Your task to perform on an android device: turn notification dots off Image 0: 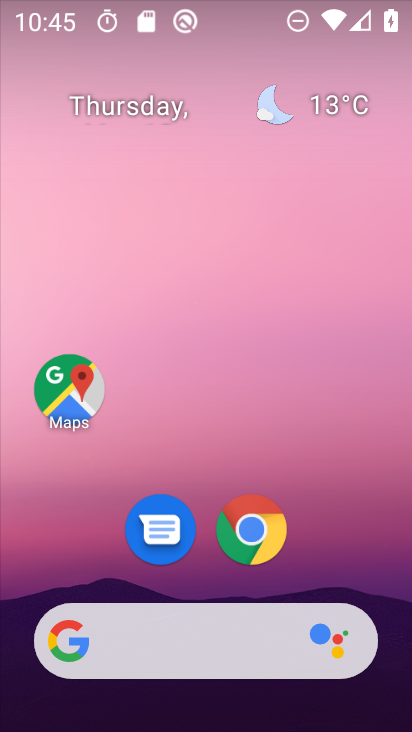
Step 0: drag from (335, 524) to (385, 98)
Your task to perform on an android device: turn notification dots off Image 1: 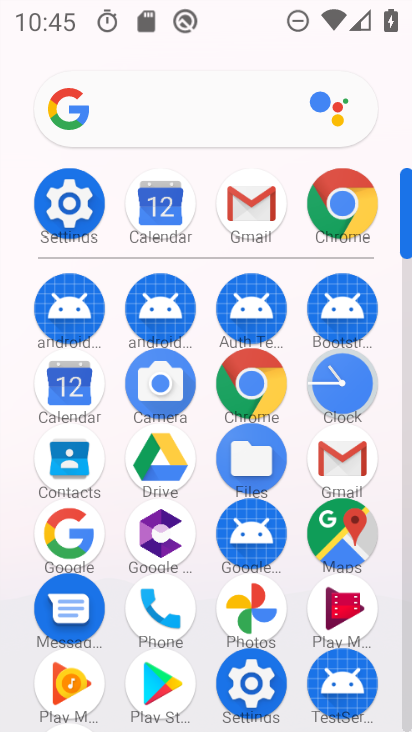
Step 1: click (76, 232)
Your task to perform on an android device: turn notification dots off Image 2: 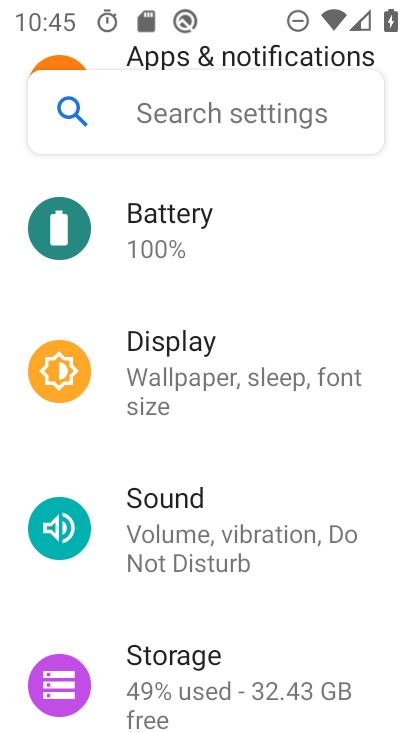
Step 2: drag from (325, 270) to (235, 557)
Your task to perform on an android device: turn notification dots off Image 3: 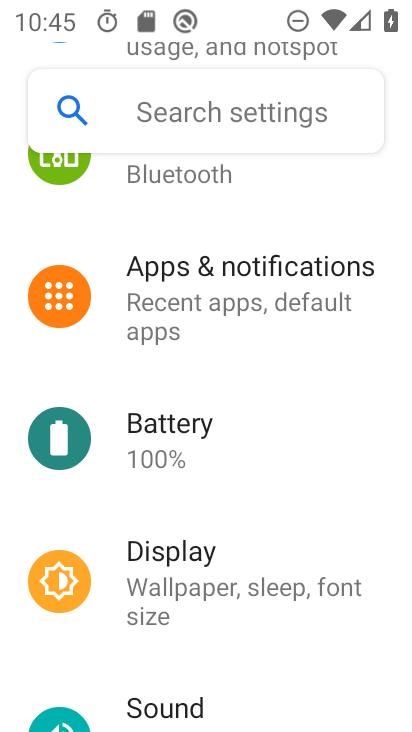
Step 3: click (330, 289)
Your task to perform on an android device: turn notification dots off Image 4: 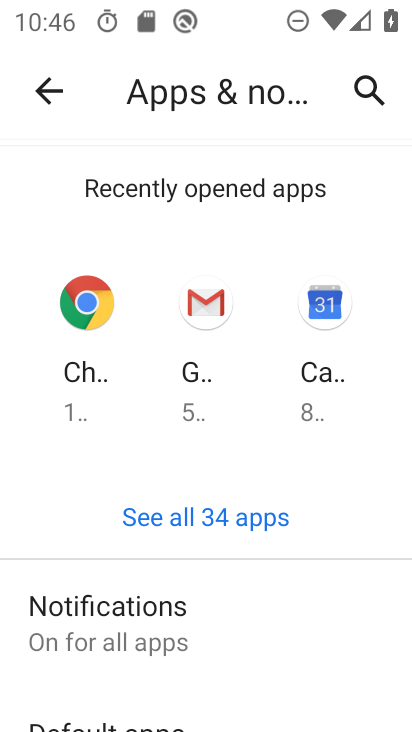
Step 4: drag from (217, 629) to (320, 273)
Your task to perform on an android device: turn notification dots off Image 5: 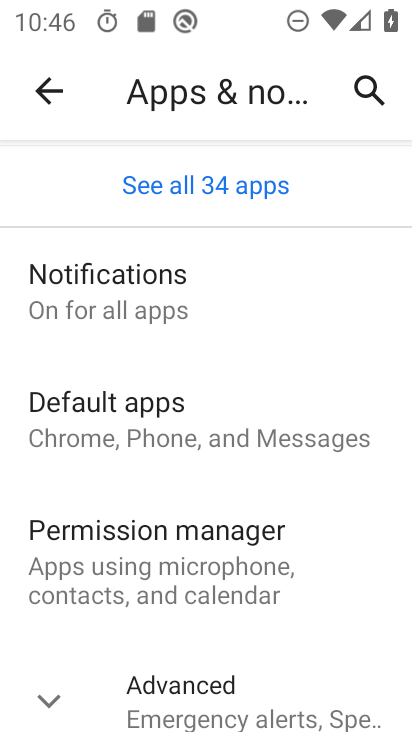
Step 5: drag from (308, 563) to (357, 269)
Your task to perform on an android device: turn notification dots off Image 6: 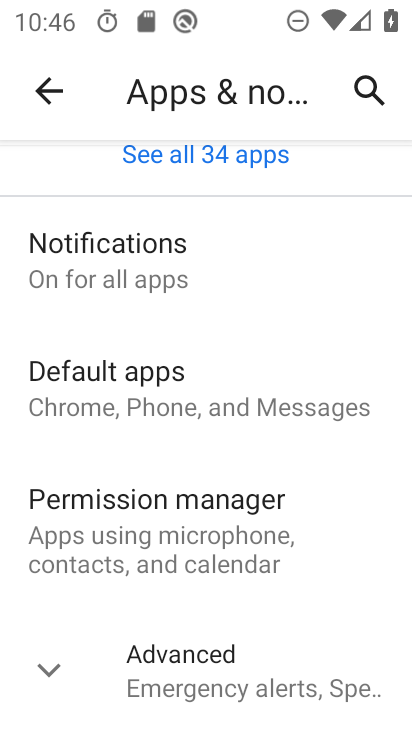
Step 6: click (285, 254)
Your task to perform on an android device: turn notification dots off Image 7: 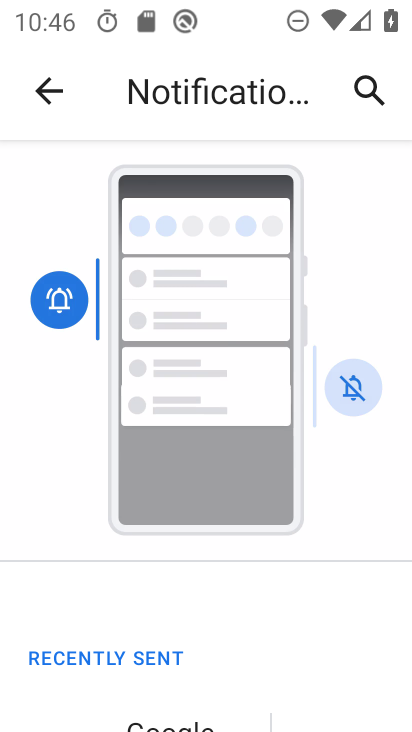
Step 7: drag from (219, 615) to (331, 253)
Your task to perform on an android device: turn notification dots off Image 8: 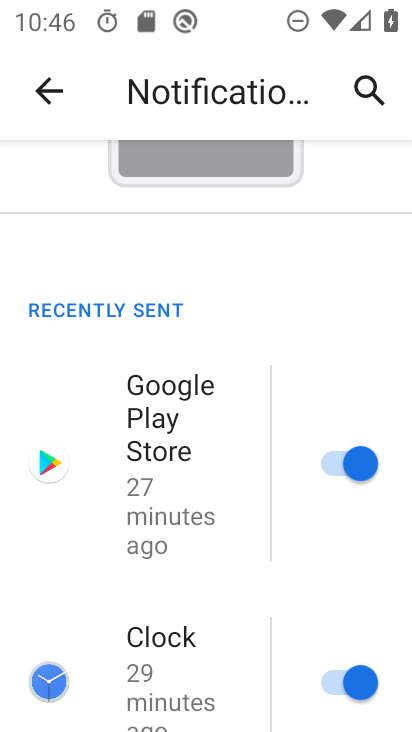
Step 8: drag from (173, 577) to (349, 109)
Your task to perform on an android device: turn notification dots off Image 9: 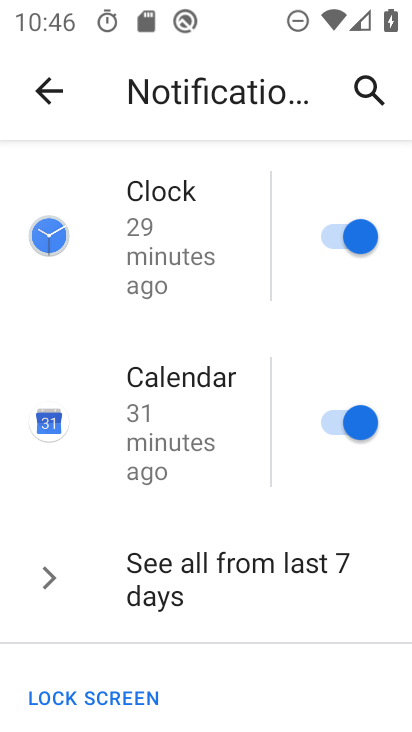
Step 9: drag from (171, 560) to (369, 8)
Your task to perform on an android device: turn notification dots off Image 10: 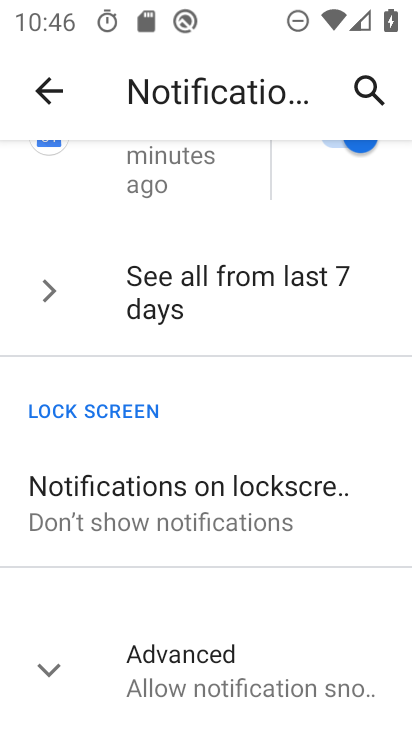
Step 10: click (168, 658)
Your task to perform on an android device: turn notification dots off Image 11: 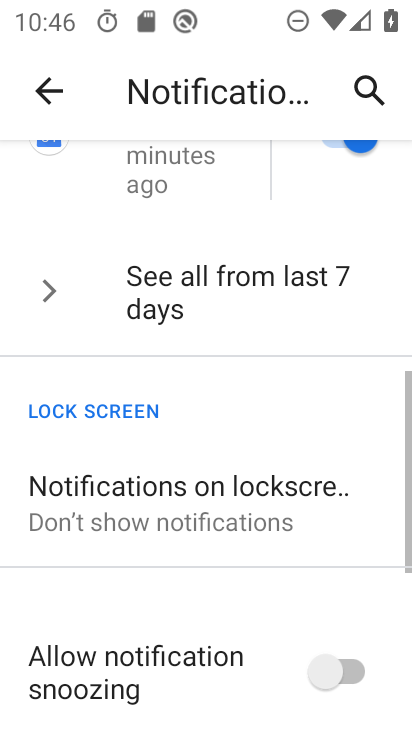
Step 11: drag from (212, 676) to (407, 210)
Your task to perform on an android device: turn notification dots off Image 12: 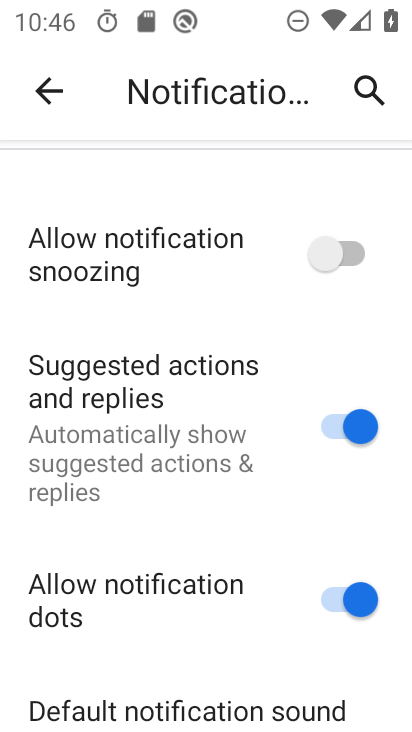
Step 12: drag from (207, 634) to (308, 308)
Your task to perform on an android device: turn notification dots off Image 13: 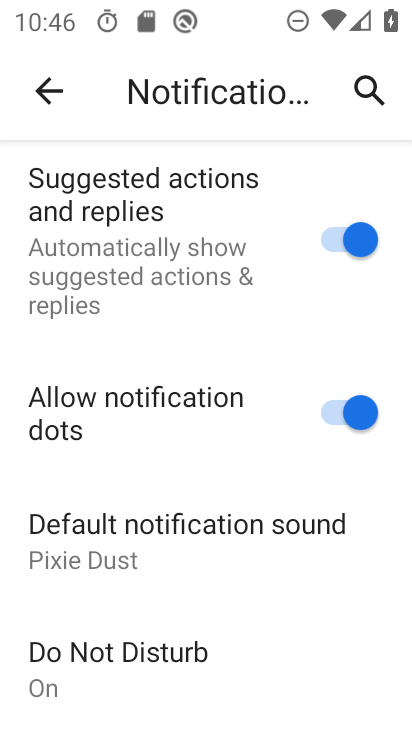
Step 13: click (339, 408)
Your task to perform on an android device: turn notification dots off Image 14: 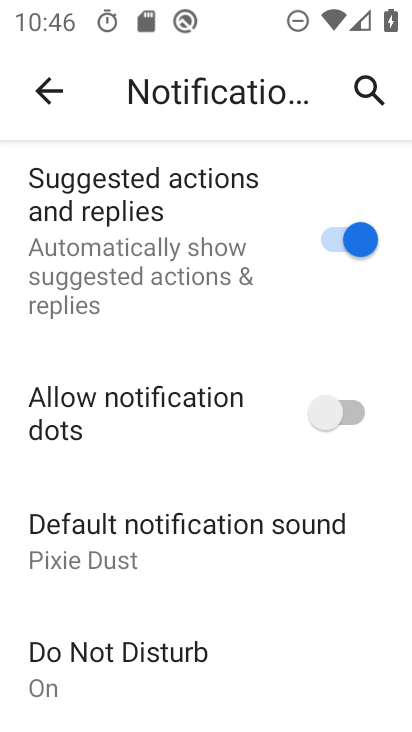
Step 14: task complete